Your task to perform on an android device: Open battery settings Image 0: 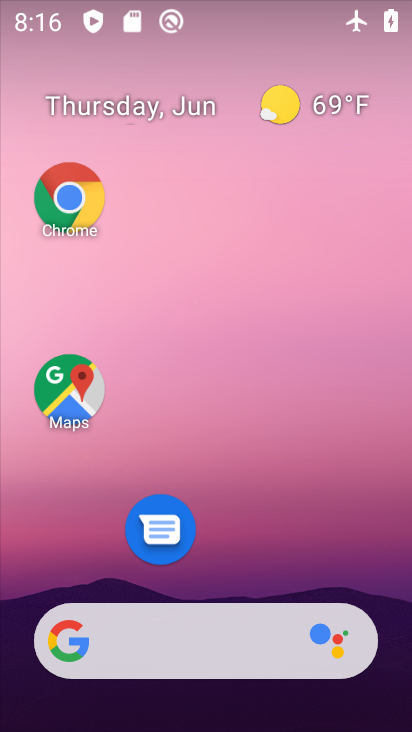
Step 0: drag from (216, 592) to (249, 100)
Your task to perform on an android device: Open battery settings Image 1: 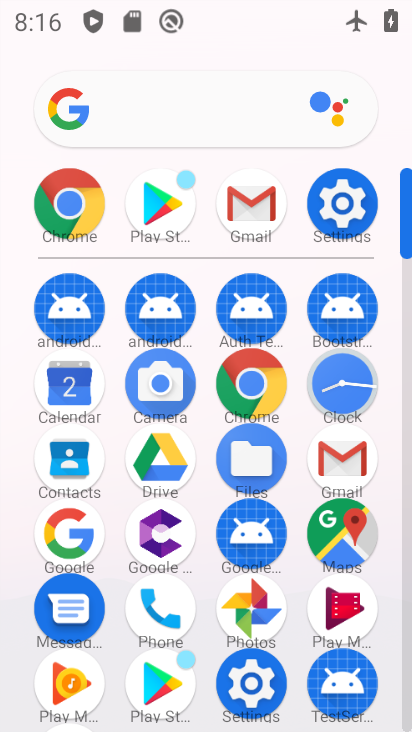
Step 1: click (329, 205)
Your task to perform on an android device: Open battery settings Image 2: 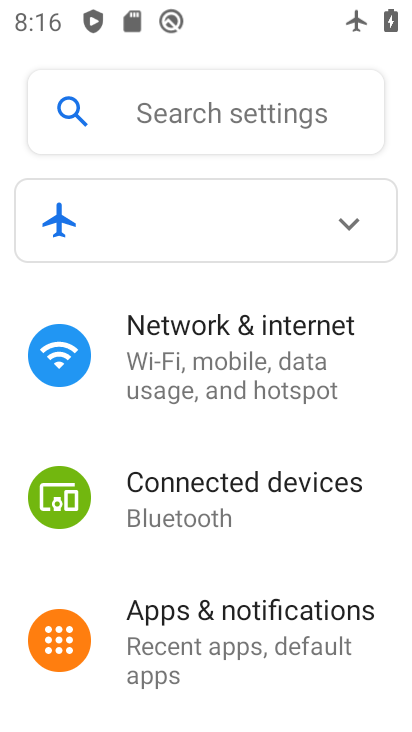
Step 2: drag from (291, 582) to (335, 277)
Your task to perform on an android device: Open battery settings Image 3: 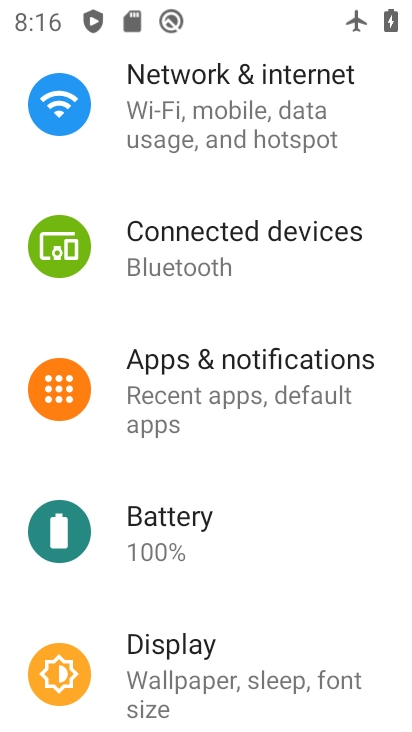
Step 3: click (216, 562)
Your task to perform on an android device: Open battery settings Image 4: 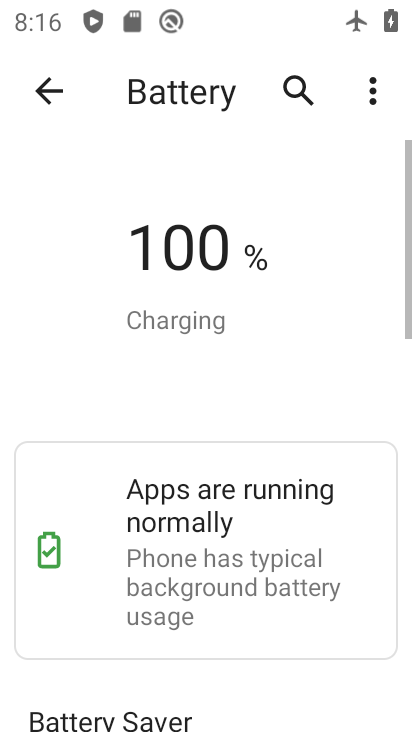
Step 4: task complete